Your task to perform on an android device: turn on data saver in the chrome app Image 0: 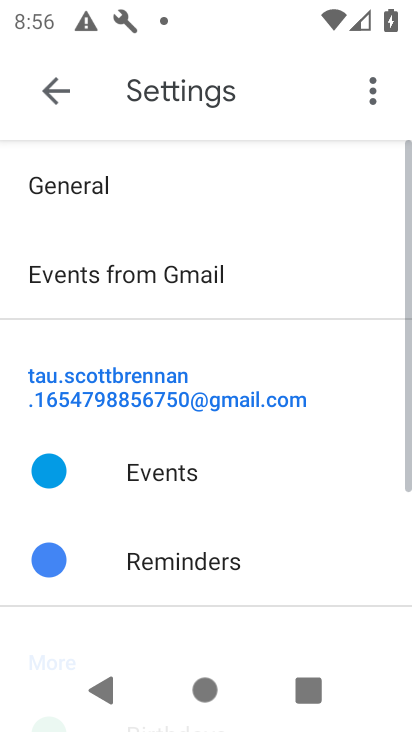
Step 0: drag from (247, 631) to (215, 120)
Your task to perform on an android device: turn on data saver in the chrome app Image 1: 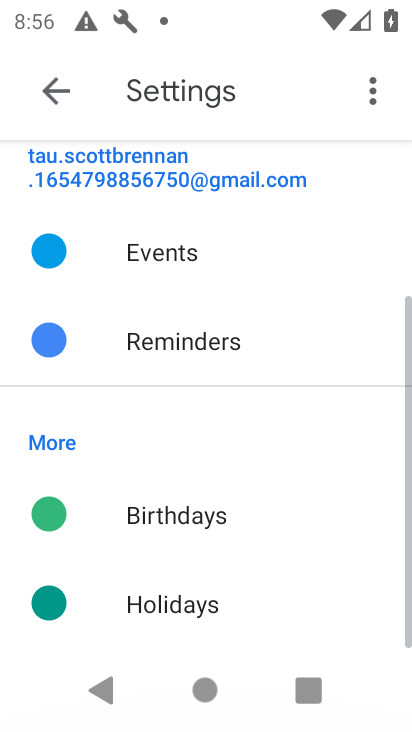
Step 1: click (49, 92)
Your task to perform on an android device: turn on data saver in the chrome app Image 2: 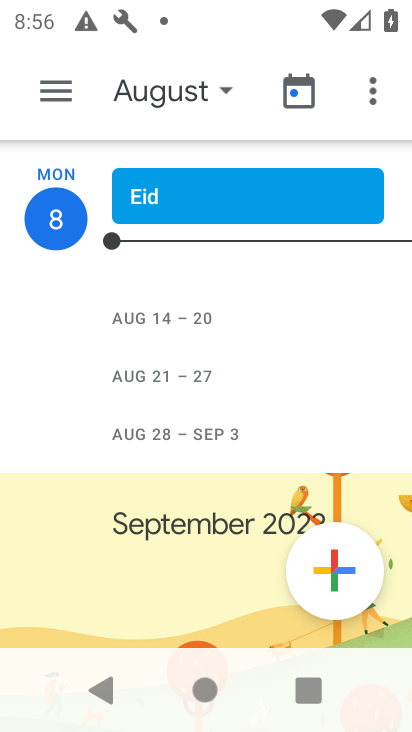
Step 2: press back button
Your task to perform on an android device: turn on data saver in the chrome app Image 3: 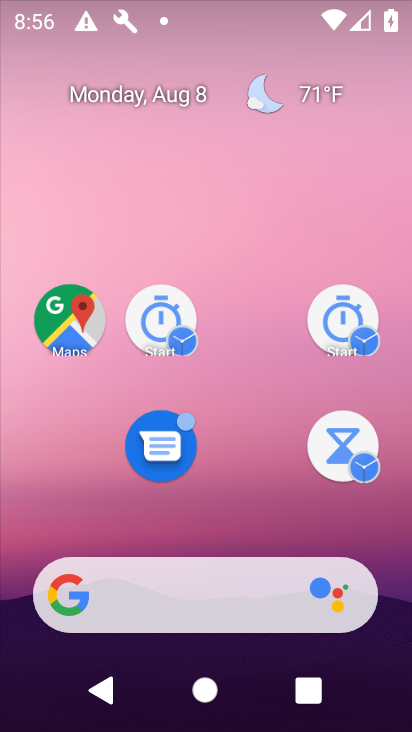
Step 3: drag from (276, 381) to (275, 125)
Your task to perform on an android device: turn on data saver in the chrome app Image 4: 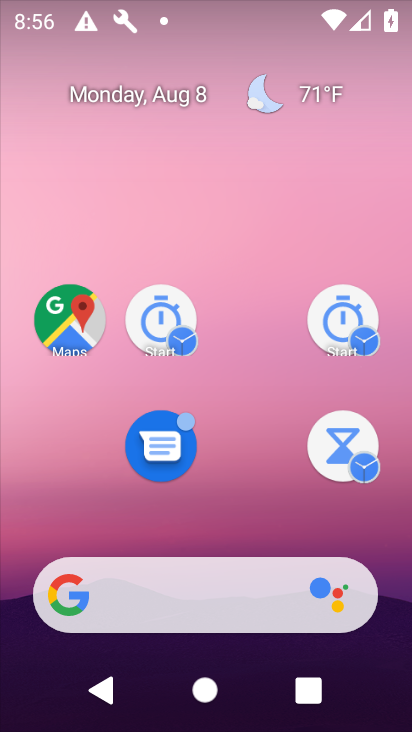
Step 4: drag from (243, 465) to (234, 92)
Your task to perform on an android device: turn on data saver in the chrome app Image 5: 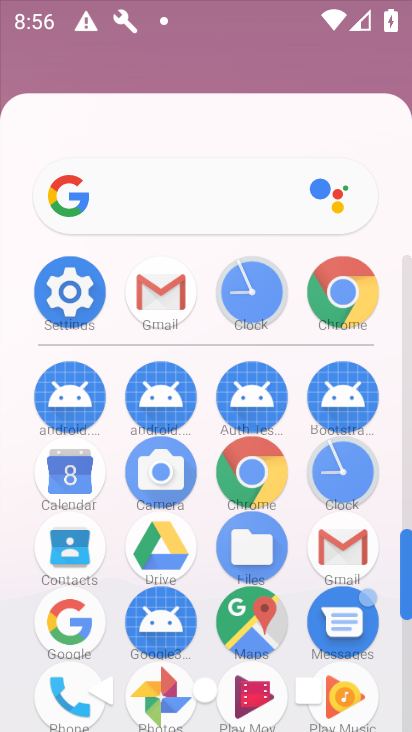
Step 5: drag from (263, 463) to (184, 62)
Your task to perform on an android device: turn on data saver in the chrome app Image 6: 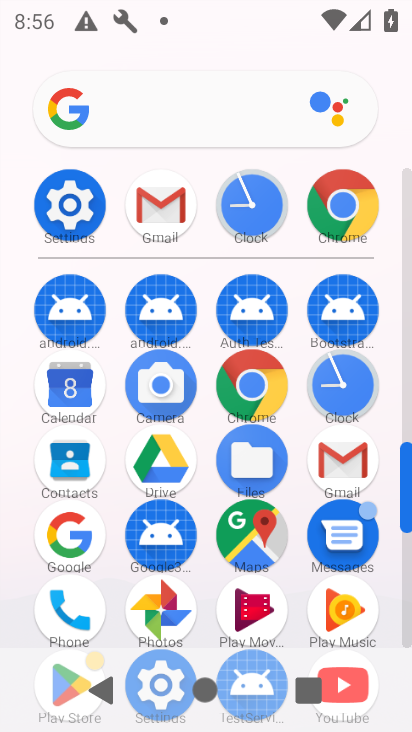
Step 6: click (337, 216)
Your task to perform on an android device: turn on data saver in the chrome app Image 7: 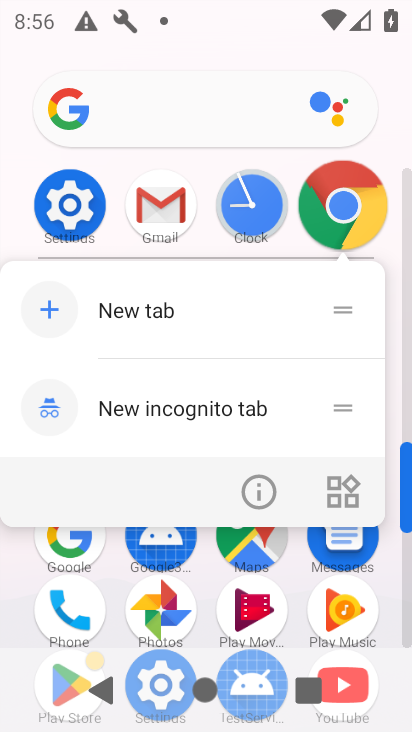
Step 7: click (337, 216)
Your task to perform on an android device: turn on data saver in the chrome app Image 8: 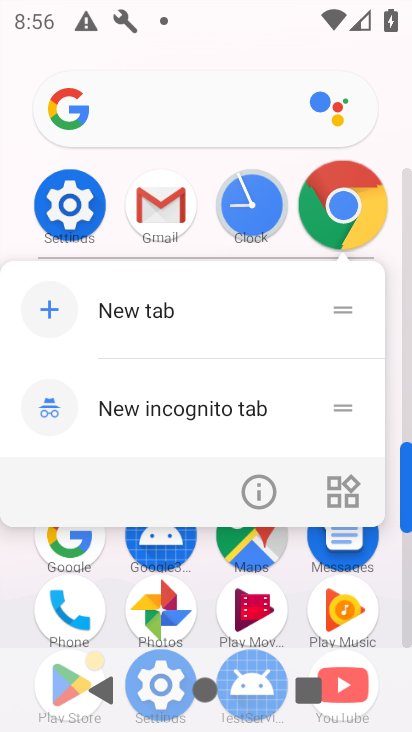
Step 8: click (338, 219)
Your task to perform on an android device: turn on data saver in the chrome app Image 9: 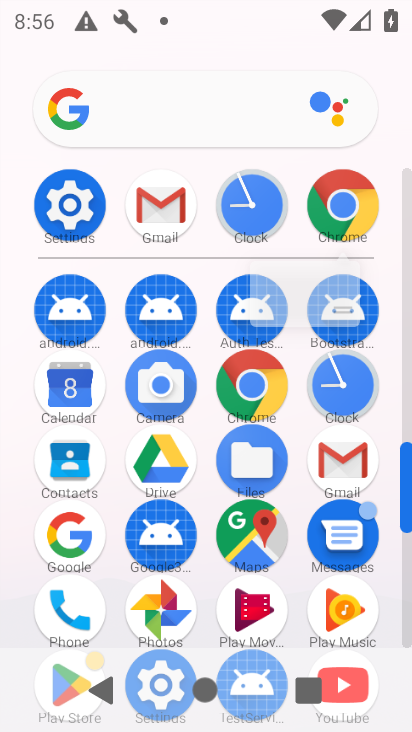
Step 9: click (338, 219)
Your task to perform on an android device: turn on data saver in the chrome app Image 10: 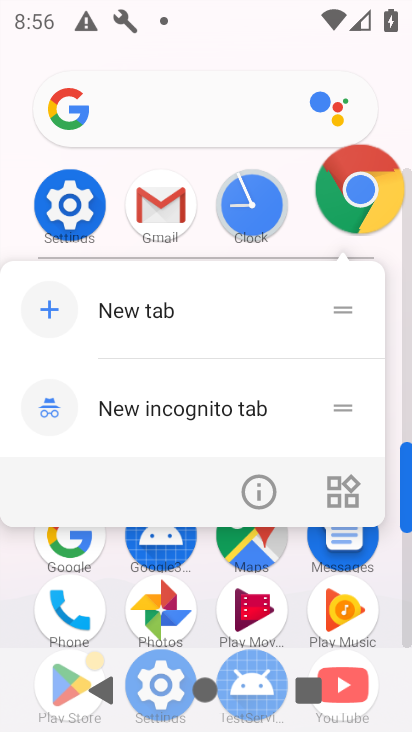
Step 10: click (358, 199)
Your task to perform on an android device: turn on data saver in the chrome app Image 11: 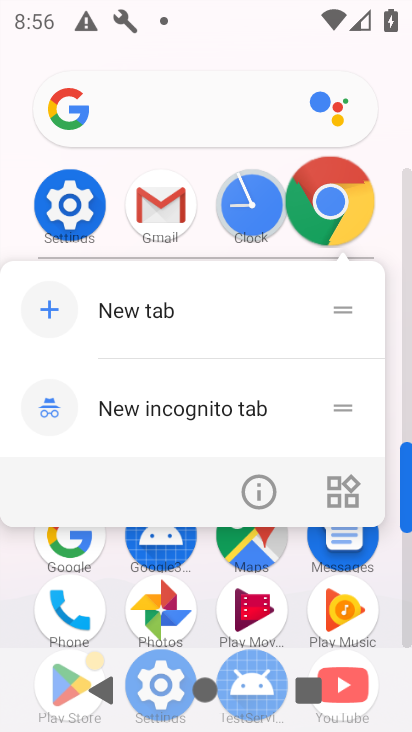
Step 11: click (331, 204)
Your task to perform on an android device: turn on data saver in the chrome app Image 12: 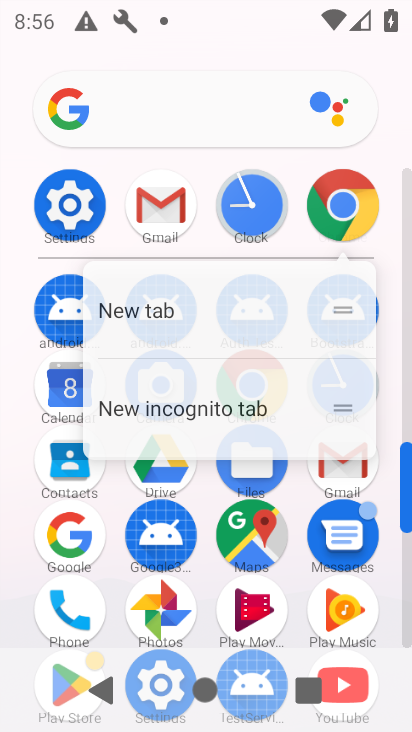
Step 12: click (337, 217)
Your task to perform on an android device: turn on data saver in the chrome app Image 13: 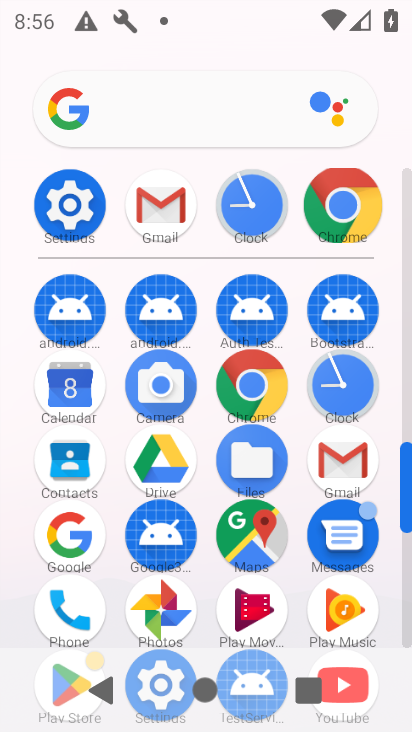
Step 13: click (328, 180)
Your task to perform on an android device: turn on data saver in the chrome app Image 14: 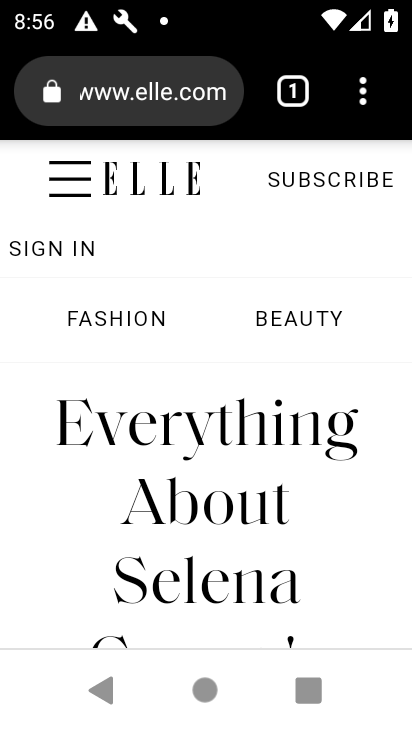
Step 14: drag from (369, 88) to (90, 474)
Your task to perform on an android device: turn on data saver in the chrome app Image 15: 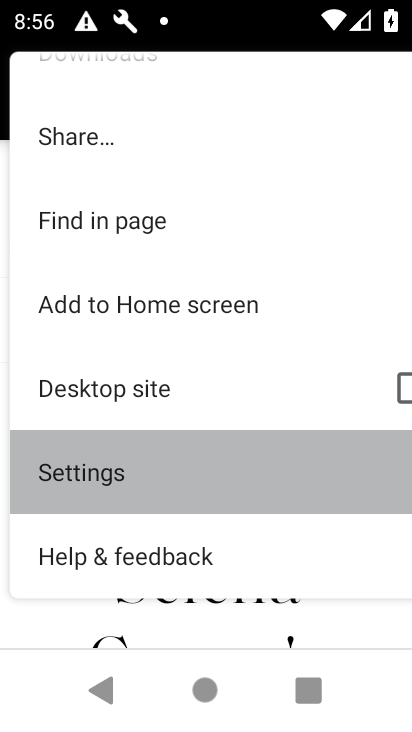
Step 15: click (88, 474)
Your task to perform on an android device: turn on data saver in the chrome app Image 16: 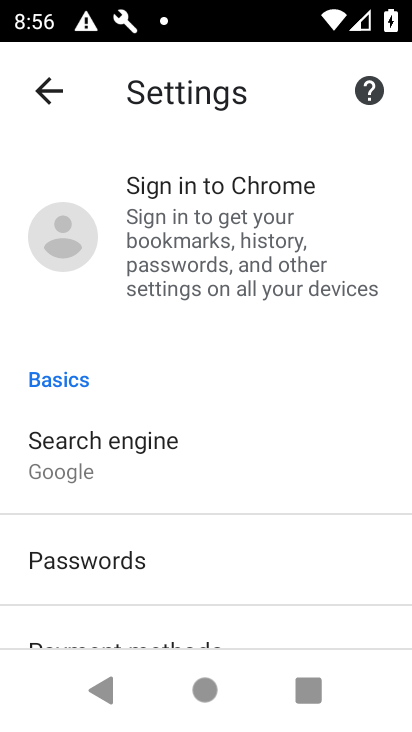
Step 16: drag from (126, 251) to (236, 131)
Your task to perform on an android device: turn on data saver in the chrome app Image 17: 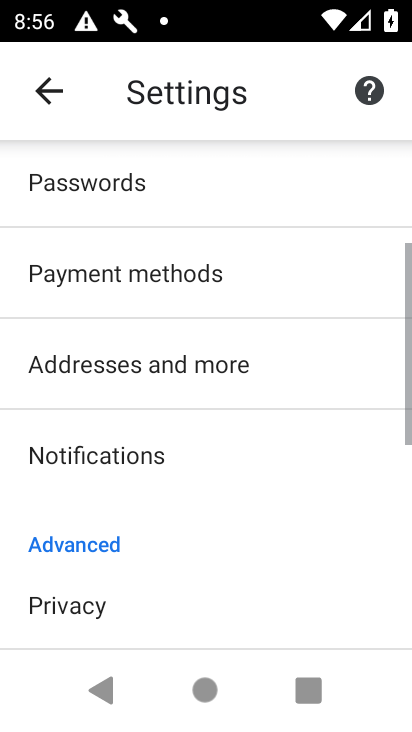
Step 17: drag from (210, 396) to (209, 83)
Your task to perform on an android device: turn on data saver in the chrome app Image 18: 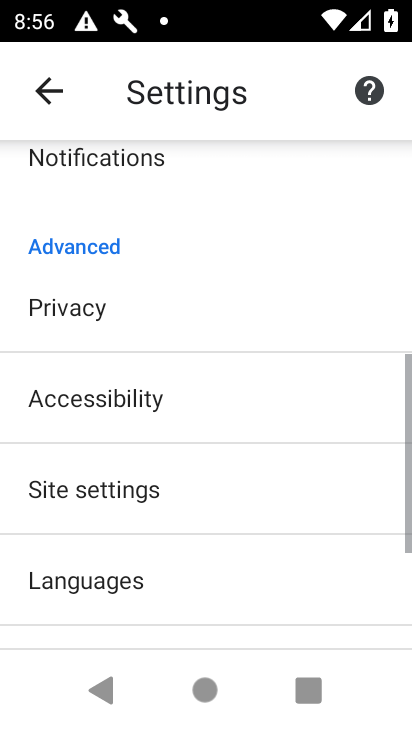
Step 18: click (195, 118)
Your task to perform on an android device: turn on data saver in the chrome app Image 19: 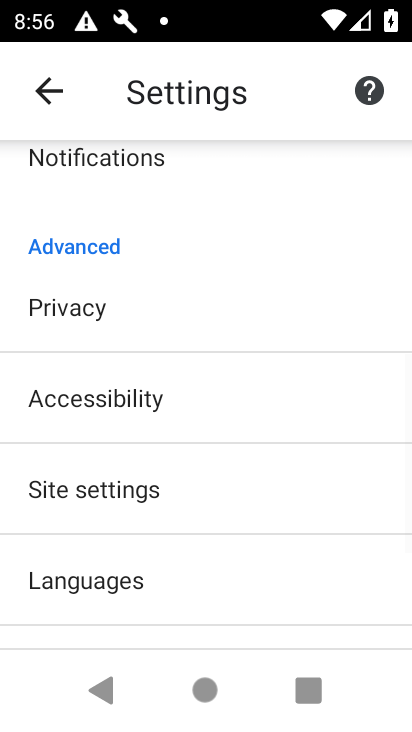
Step 19: drag from (206, 404) to (210, 155)
Your task to perform on an android device: turn on data saver in the chrome app Image 20: 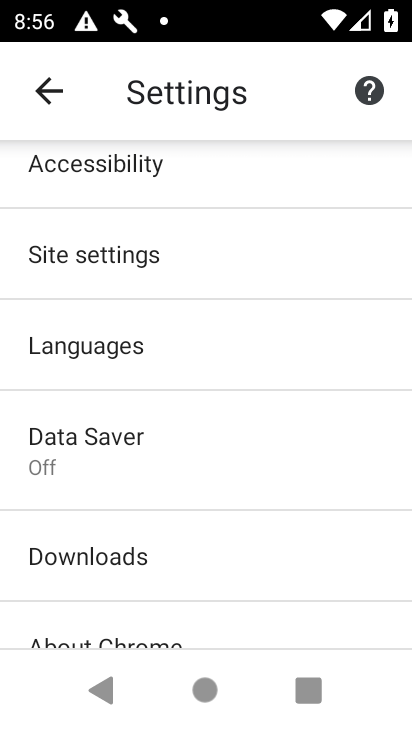
Step 20: click (83, 438)
Your task to perform on an android device: turn on data saver in the chrome app Image 21: 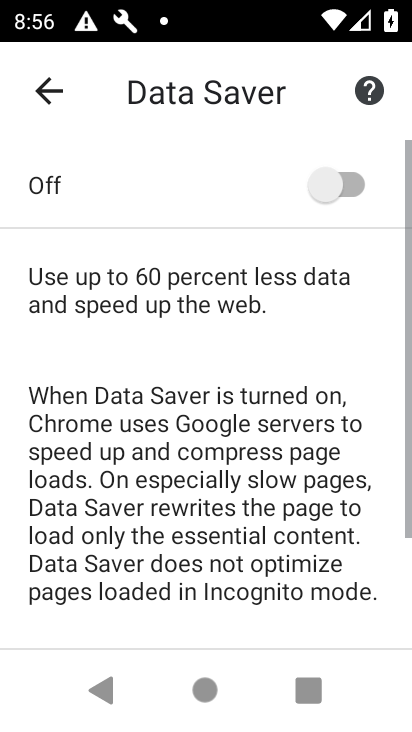
Step 21: click (329, 196)
Your task to perform on an android device: turn on data saver in the chrome app Image 22: 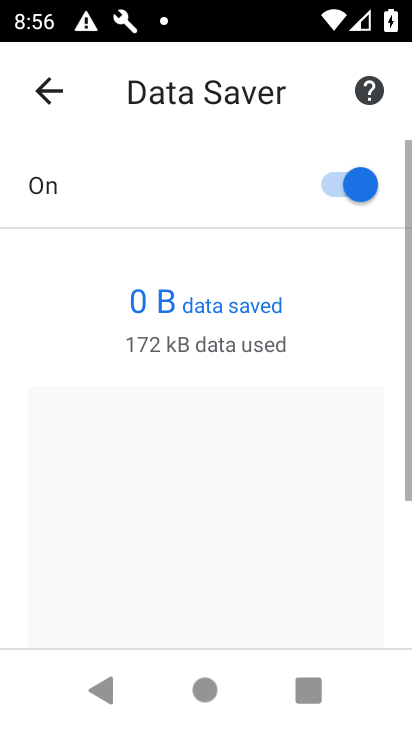
Step 22: task complete